Your task to perform on an android device: Go to display settings Image 0: 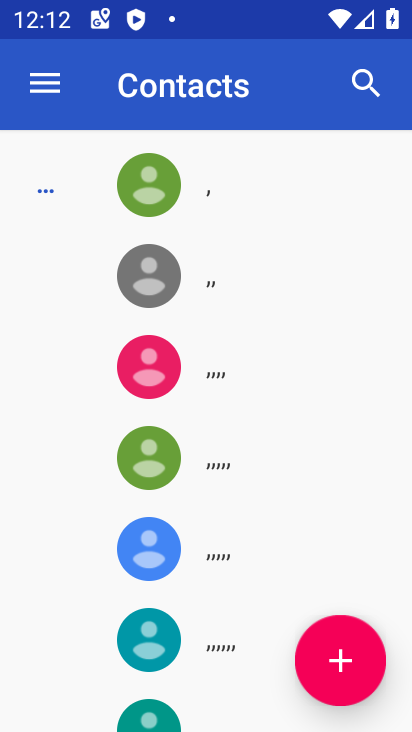
Step 0: press home button
Your task to perform on an android device: Go to display settings Image 1: 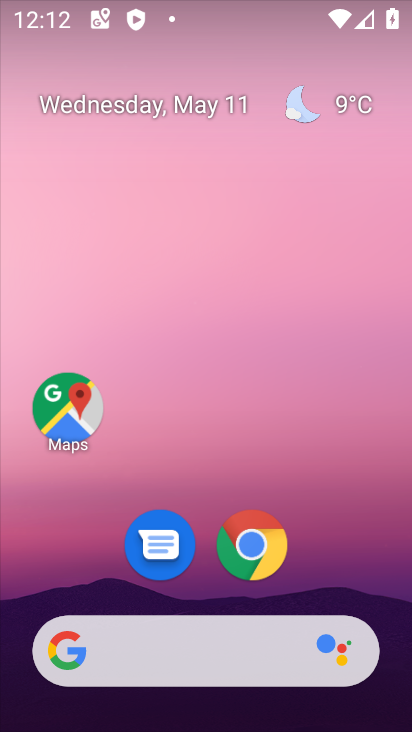
Step 1: drag from (339, 531) to (288, 26)
Your task to perform on an android device: Go to display settings Image 2: 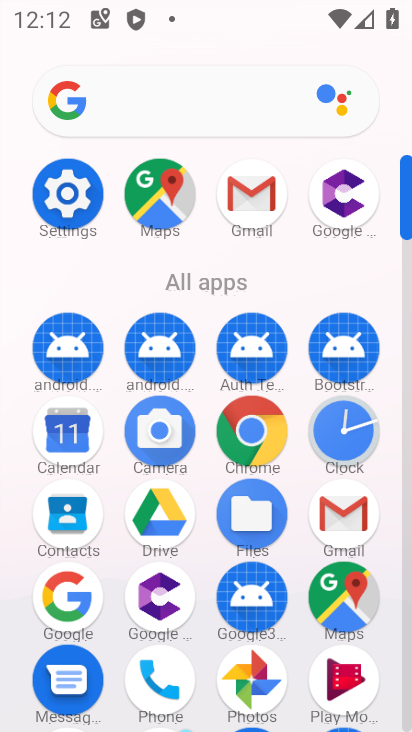
Step 2: click (72, 204)
Your task to perform on an android device: Go to display settings Image 3: 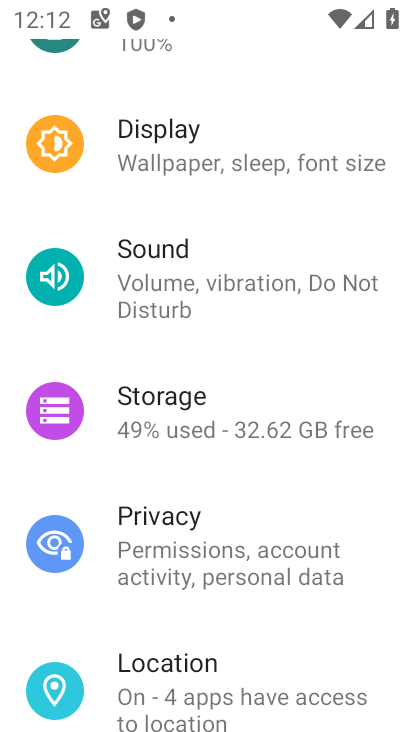
Step 3: click (210, 157)
Your task to perform on an android device: Go to display settings Image 4: 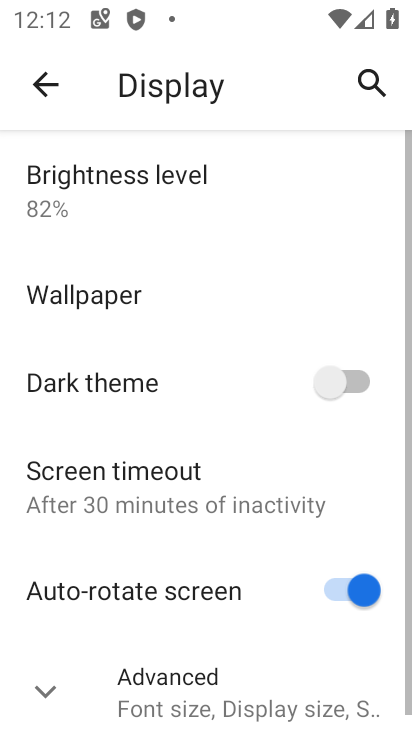
Step 4: task complete